Your task to perform on an android device: uninstall "Google Calendar" Image 0: 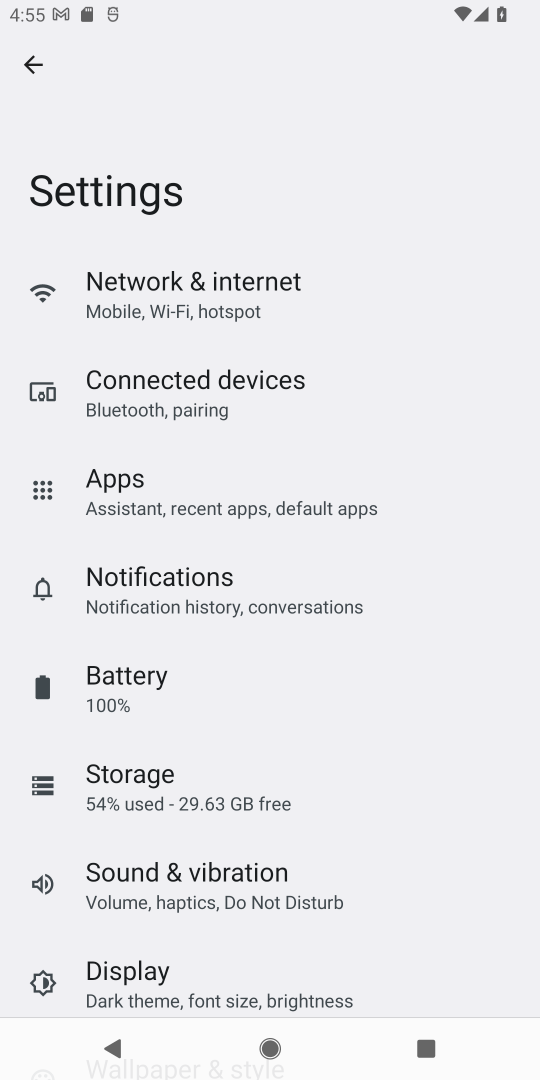
Step 0: press home button
Your task to perform on an android device: uninstall "Google Calendar" Image 1: 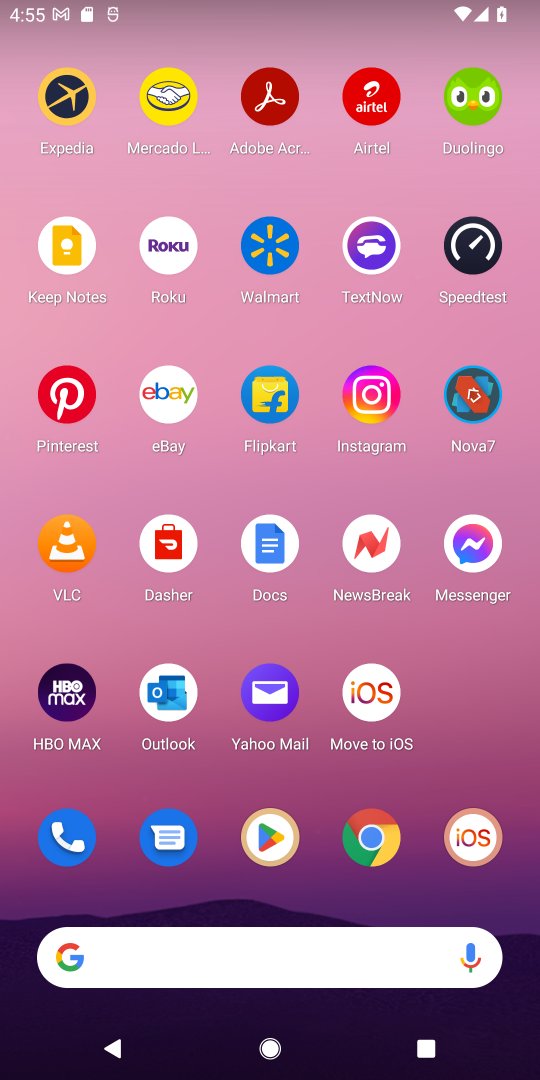
Step 1: press home button
Your task to perform on an android device: uninstall "Google Calendar" Image 2: 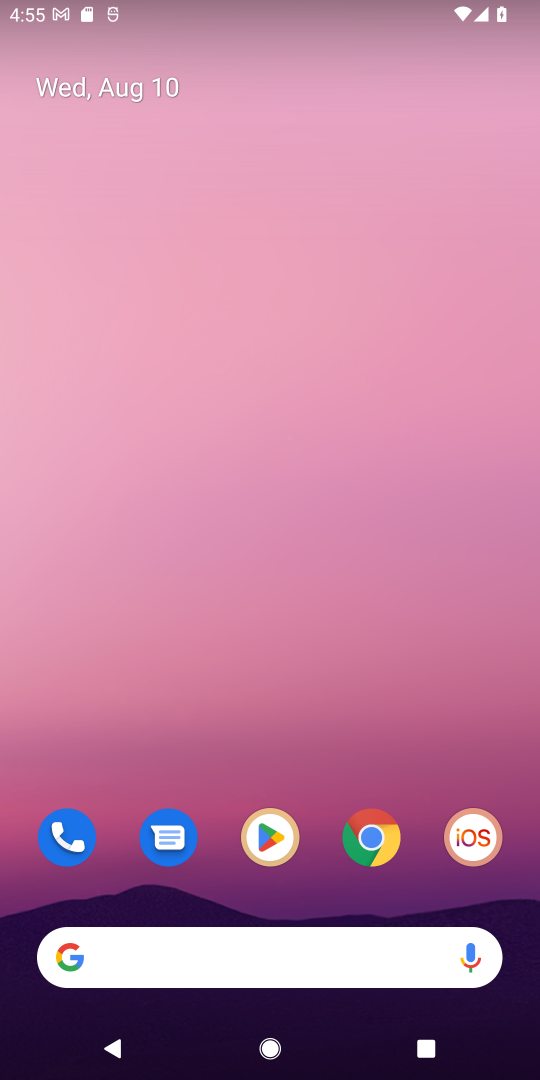
Step 2: click (269, 827)
Your task to perform on an android device: uninstall "Google Calendar" Image 3: 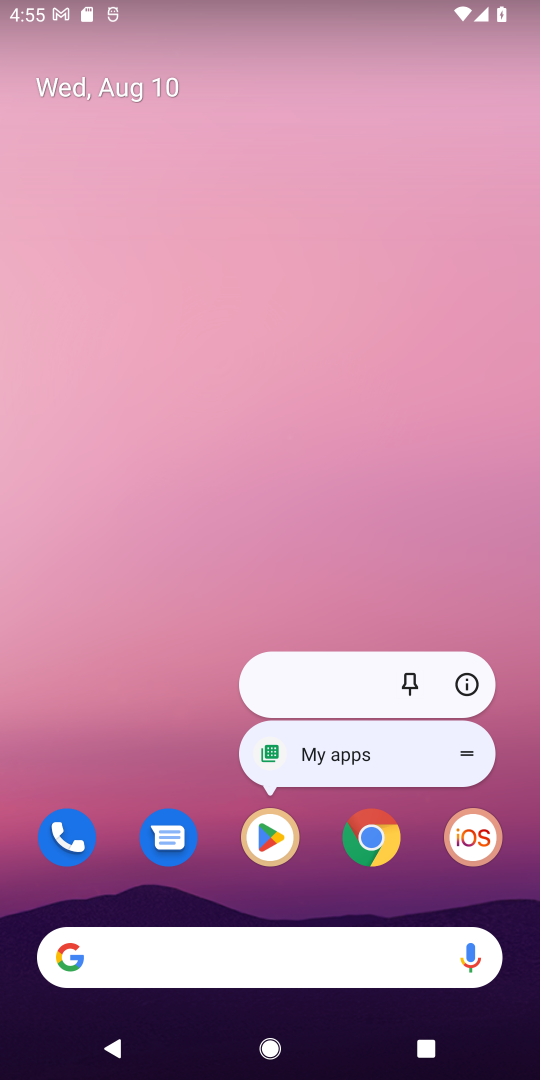
Step 3: click (269, 832)
Your task to perform on an android device: uninstall "Google Calendar" Image 4: 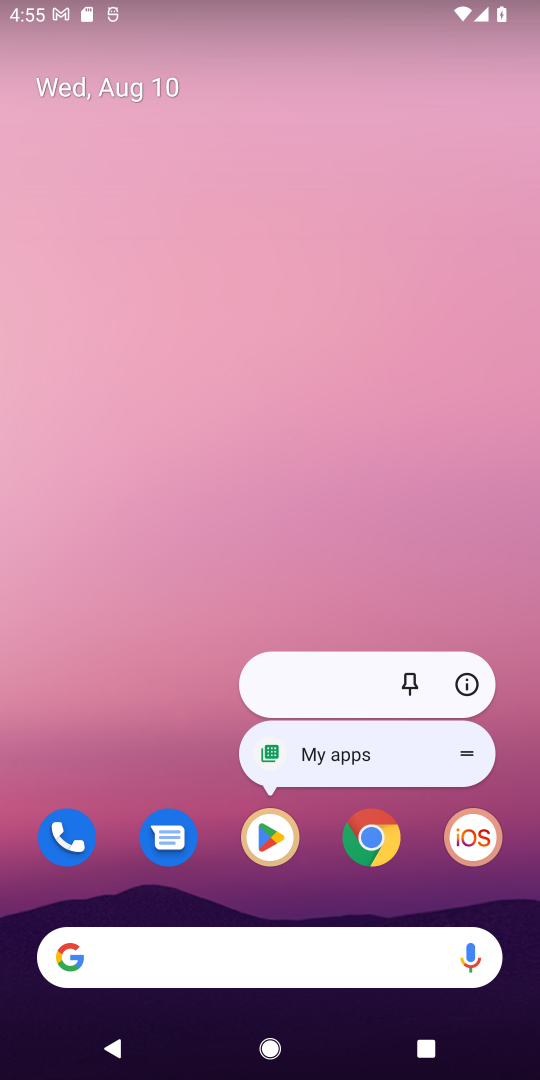
Step 4: click (269, 832)
Your task to perform on an android device: uninstall "Google Calendar" Image 5: 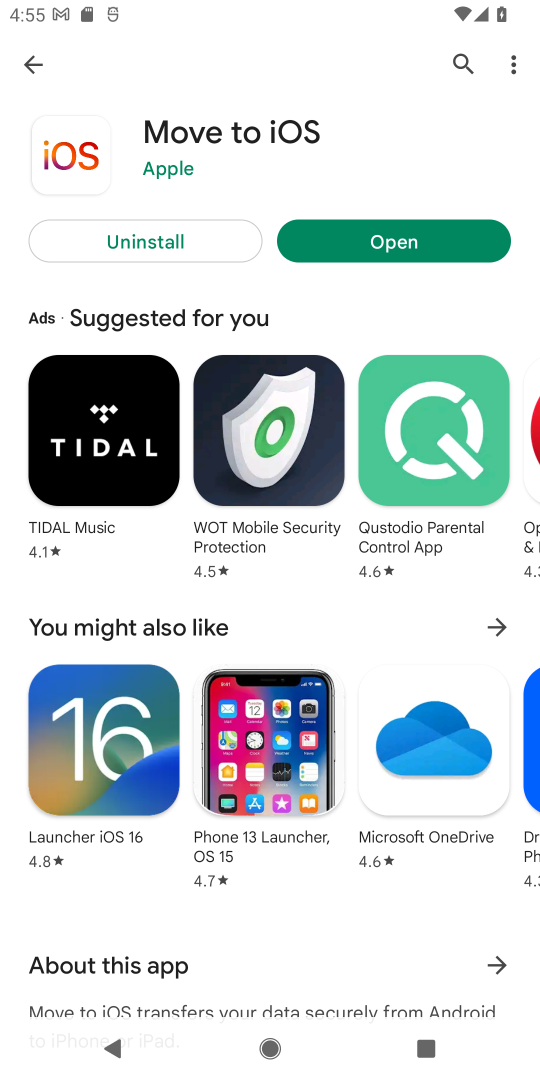
Step 5: click (460, 60)
Your task to perform on an android device: uninstall "Google Calendar" Image 6: 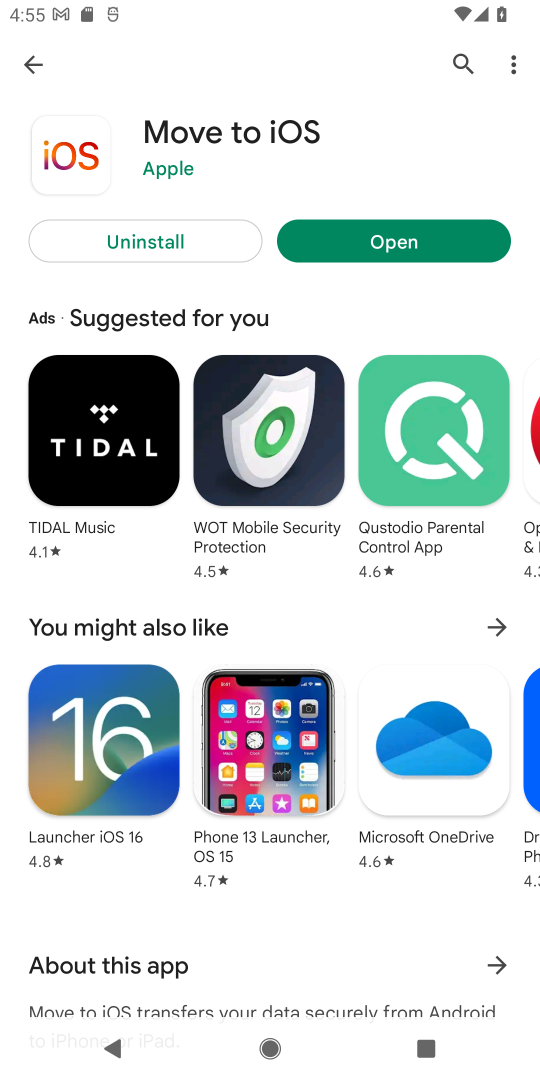
Step 6: click (455, 64)
Your task to perform on an android device: uninstall "Google Calendar" Image 7: 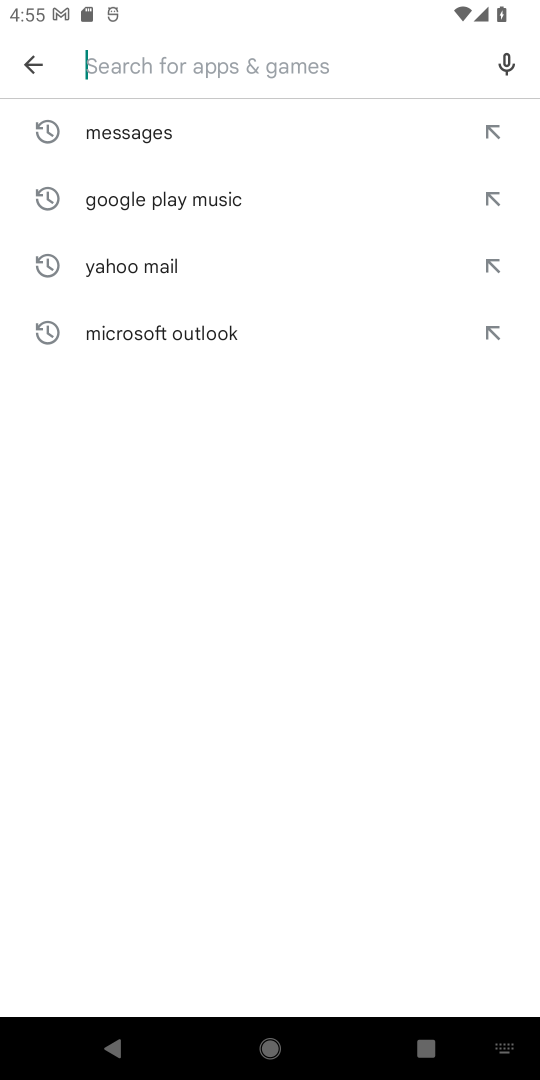
Step 7: type "Google Calendar"
Your task to perform on an android device: uninstall "Google Calendar" Image 8: 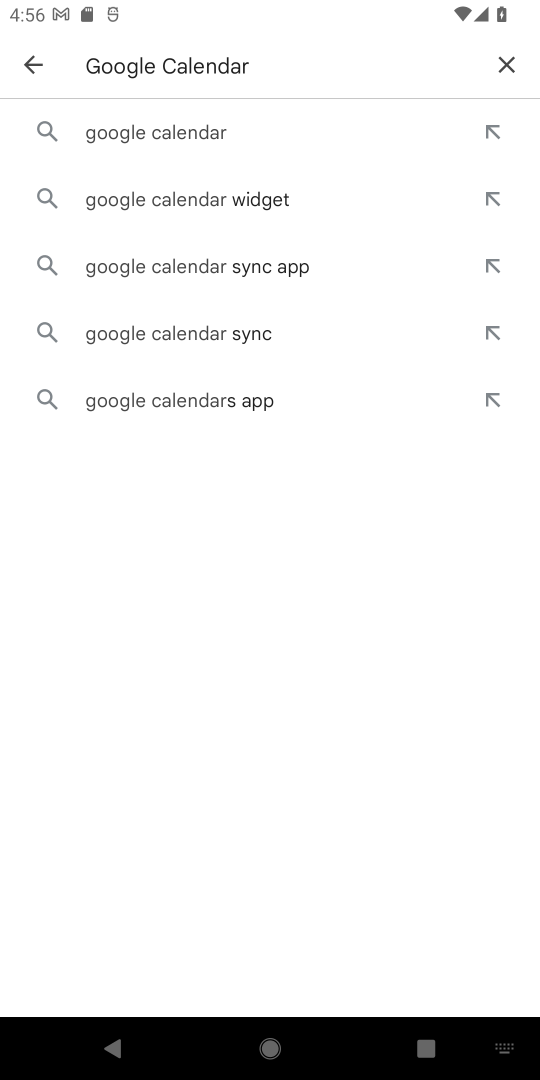
Step 8: click (200, 130)
Your task to perform on an android device: uninstall "Google Calendar" Image 9: 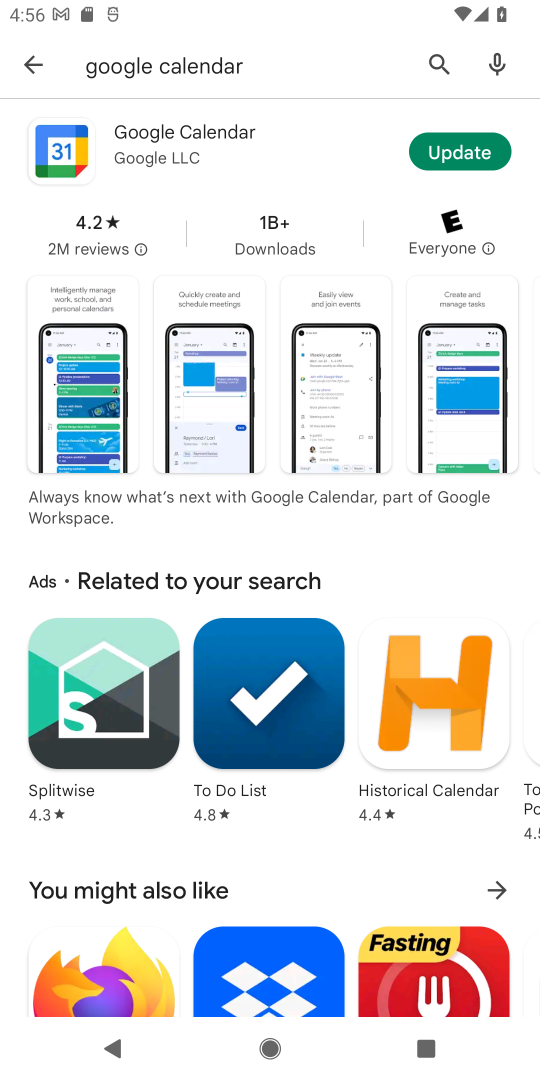
Step 9: click (145, 150)
Your task to perform on an android device: uninstall "Google Calendar" Image 10: 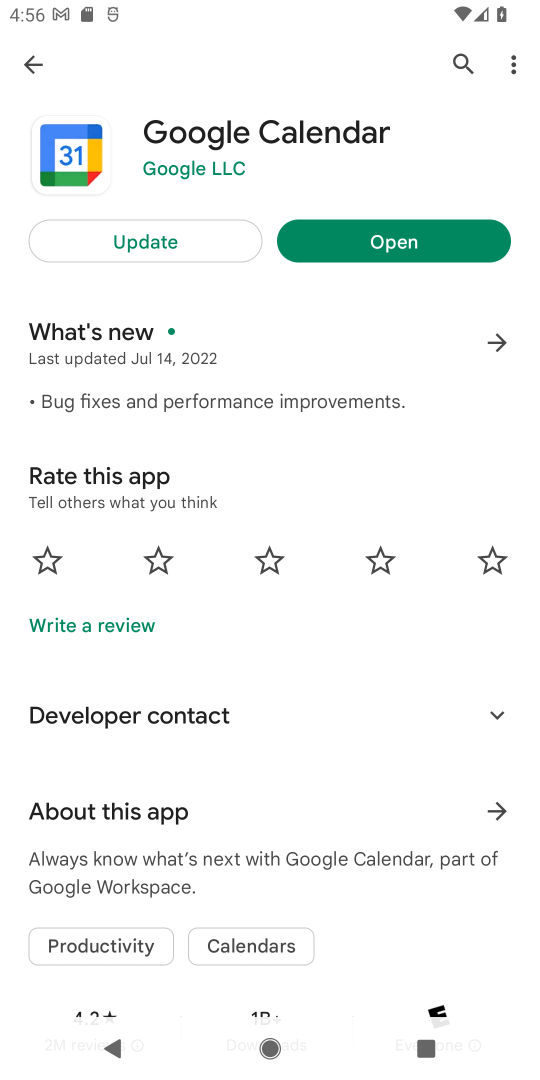
Step 10: task complete